Your task to perform on an android device: Check the weather Image 0: 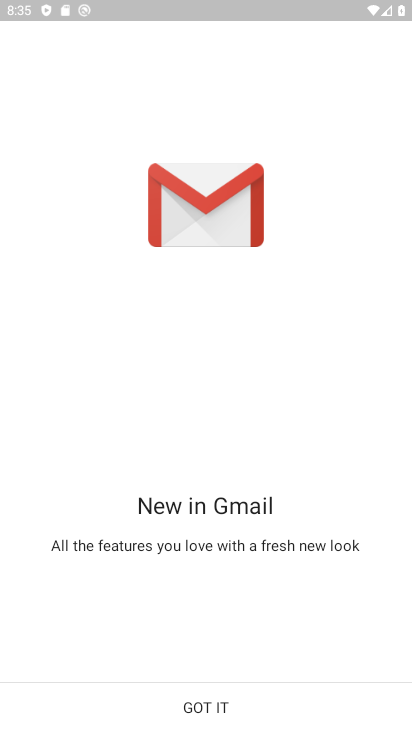
Step 0: press home button
Your task to perform on an android device: Check the weather Image 1: 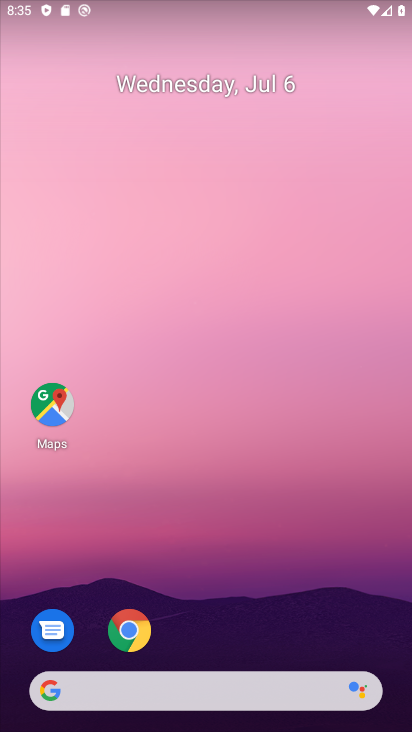
Step 1: drag from (13, 142) to (358, 176)
Your task to perform on an android device: Check the weather Image 2: 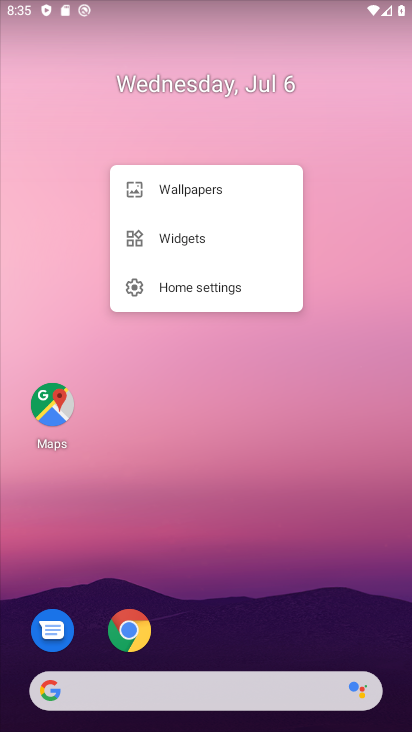
Step 2: drag from (21, 134) to (382, 162)
Your task to perform on an android device: Check the weather Image 3: 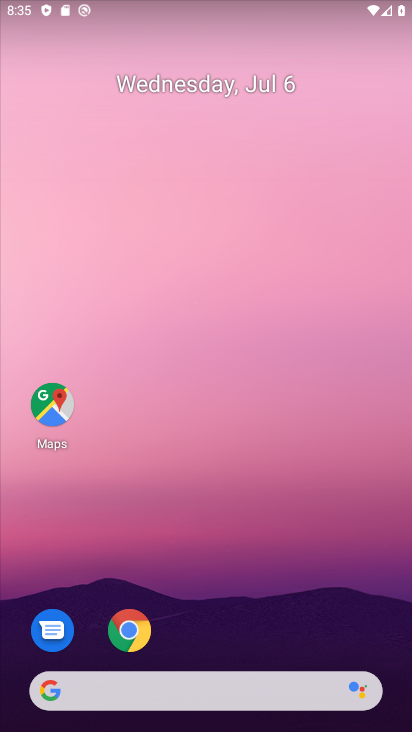
Step 3: drag from (3, 178) to (387, 173)
Your task to perform on an android device: Check the weather Image 4: 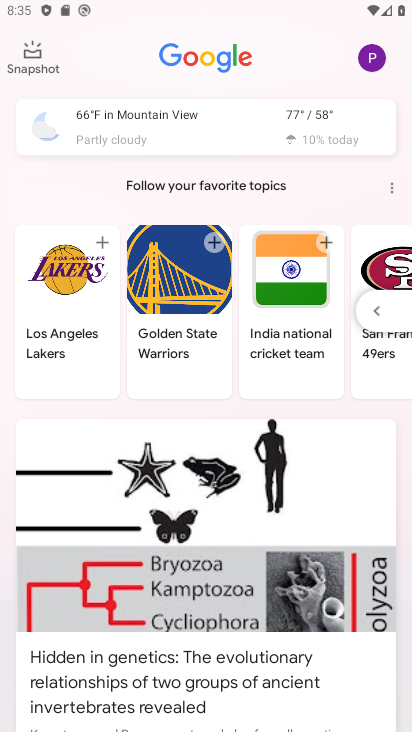
Step 4: click (111, 119)
Your task to perform on an android device: Check the weather Image 5: 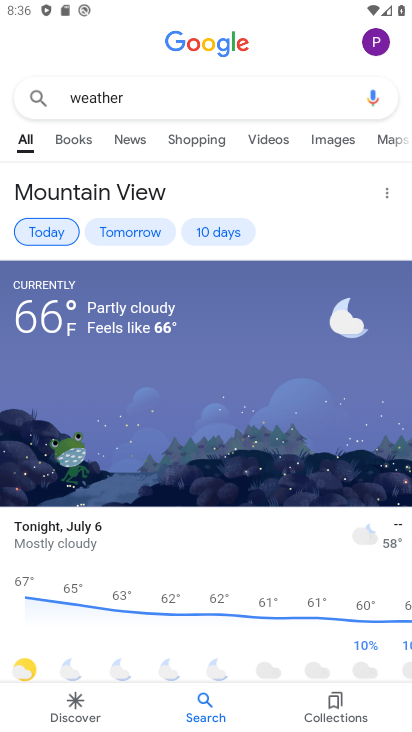
Step 5: task complete